Your task to perform on an android device: Go to calendar. Show me events next week Image 0: 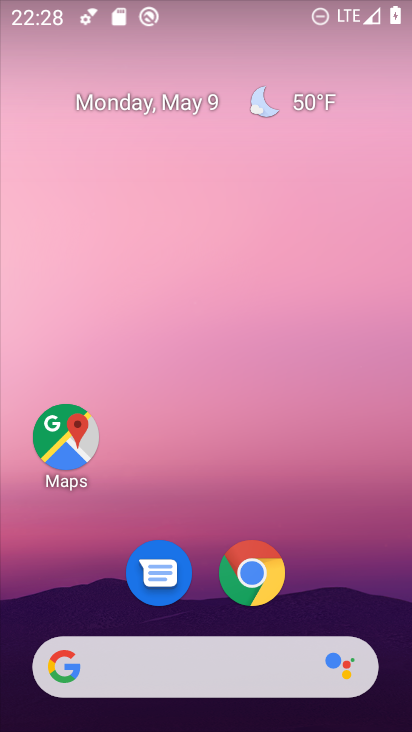
Step 0: drag from (330, 624) to (244, 170)
Your task to perform on an android device: Go to calendar. Show me events next week Image 1: 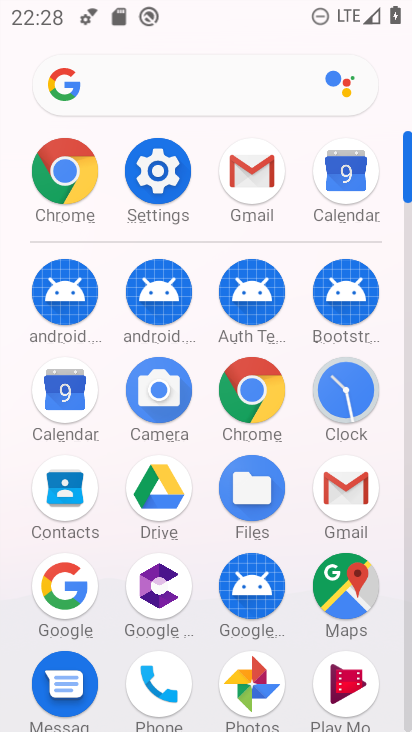
Step 1: click (68, 390)
Your task to perform on an android device: Go to calendar. Show me events next week Image 2: 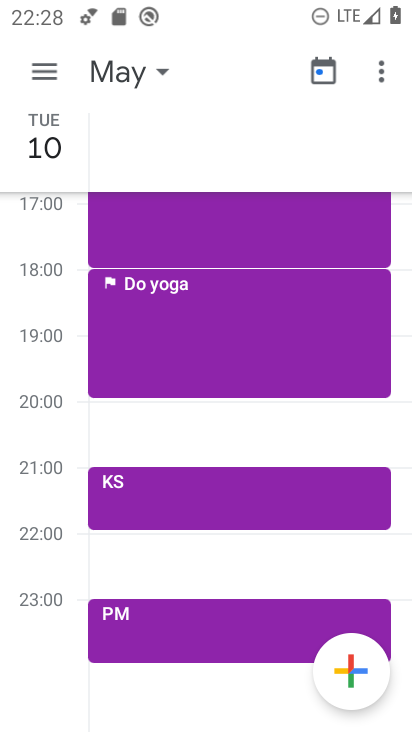
Step 2: click (107, 68)
Your task to perform on an android device: Go to calendar. Show me events next week Image 3: 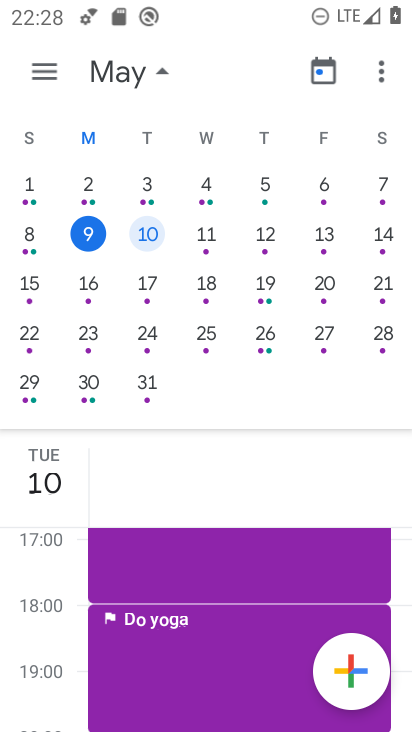
Step 3: click (84, 291)
Your task to perform on an android device: Go to calendar. Show me events next week Image 4: 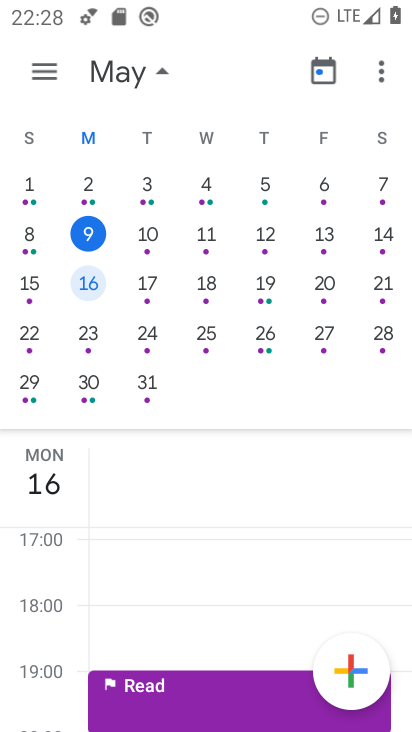
Step 4: click (53, 70)
Your task to perform on an android device: Go to calendar. Show me events next week Image 5: 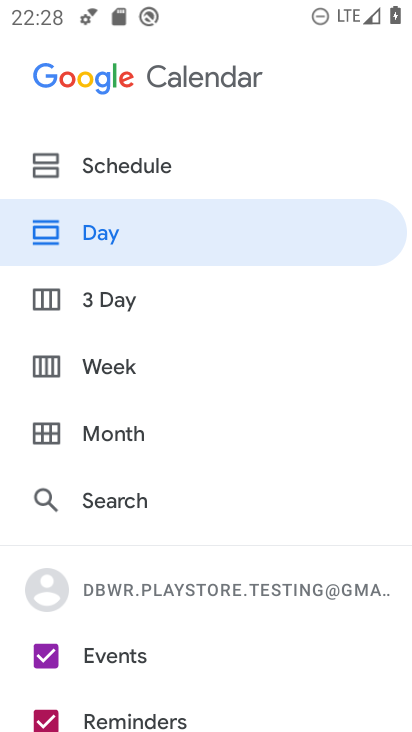
Step 5: click (127, 369)
Your task to perform on an android device: Go to calendar. Show me events next week Image 6: 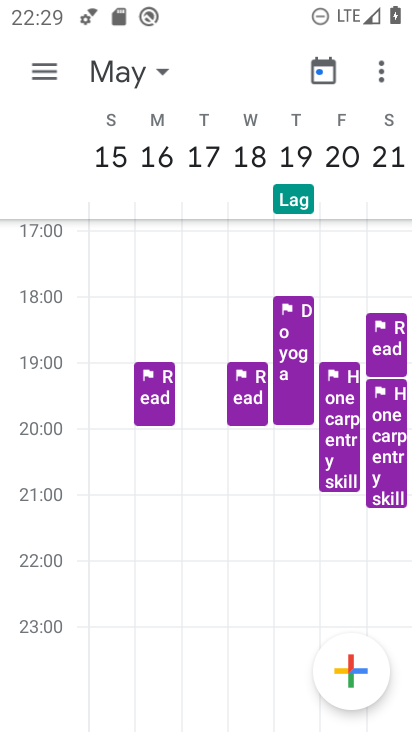
Step 6: task complete